Your task to perform on an android device: Open settings Image 0: 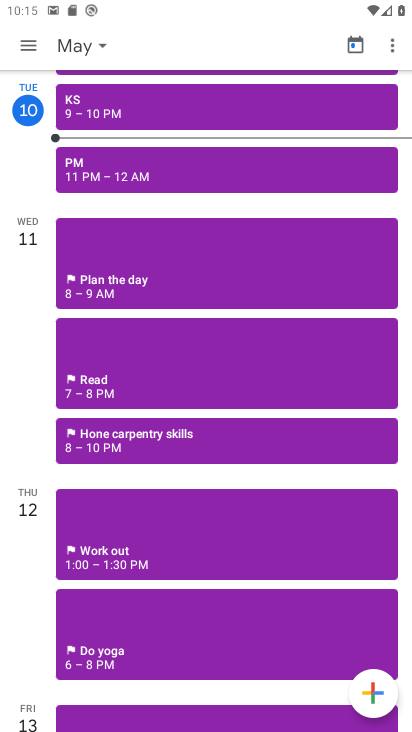
Step 0: drag from (266, 380) to (289, 19)
Your task to perform on an android device: Open settings Image 1: 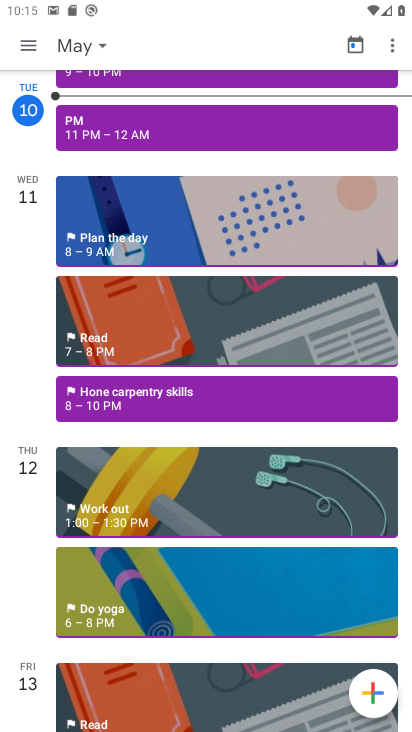
Step 1: press home button
Your task to perform on an android device: Open settings Image 2: 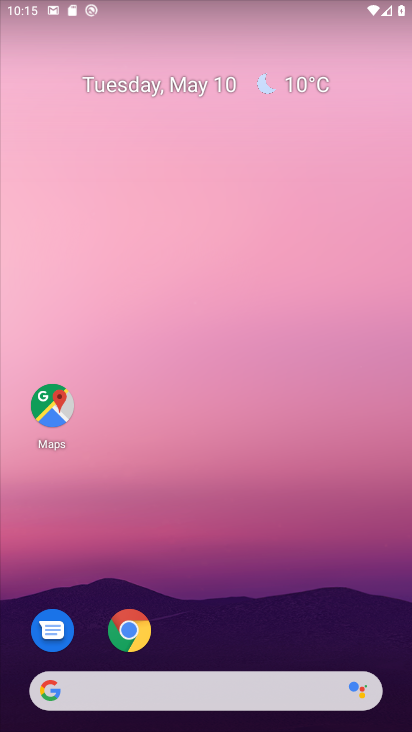
Step 2: drag from (201, 628) to (287, 2)
Your task to perform on an android device: Open settings Image 3: 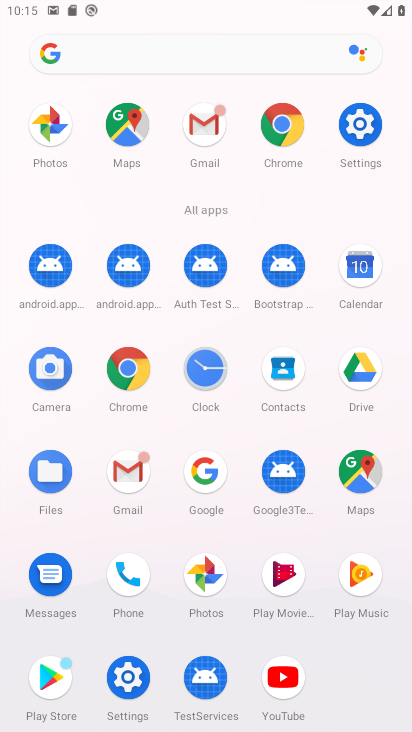
Step 3: click (366, 122)
Your task to perform on an android device: Open settings Image 4: 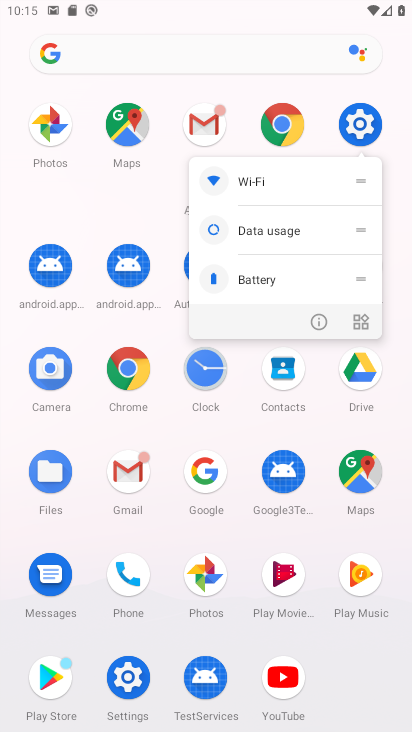
Step 4: click (339, 127)
Your task to perform on an android device: Open settings Image 5: 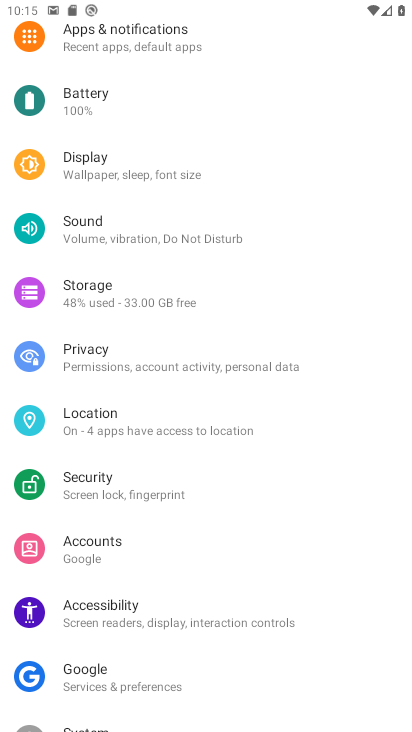
Step 5: task complete